Your task to perform on an android device: Open calendar and show me the second week of next month Image 0: 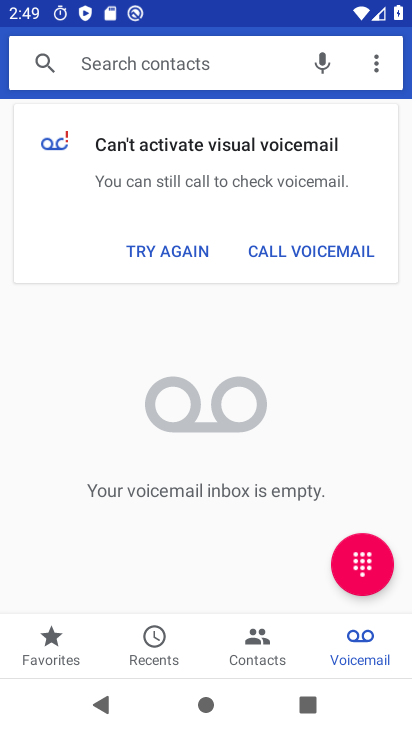
Step 0: press home button
Your task to perform on an android device: Open calendar and show me the second week of next month Image 1: 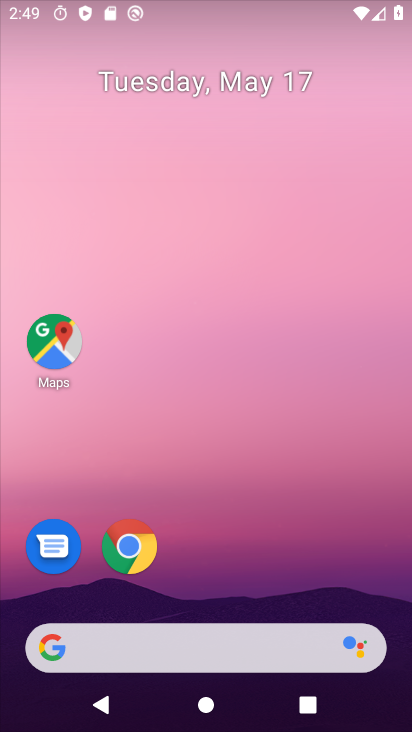
Step 1: drag from (235, 595) to (265, 112)
Your task to perform on an android device: Open calendar and show me the second week of next month Image 2: 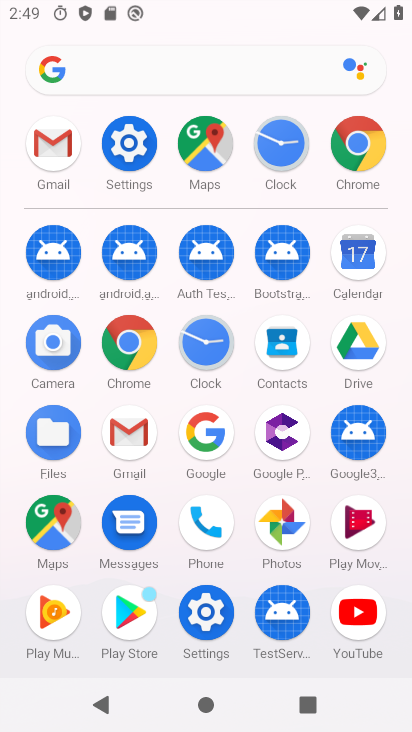
Step 2: click (362, 259)
Your task to perform on an android device: Open calendar and show me the second week of next month Image 3: 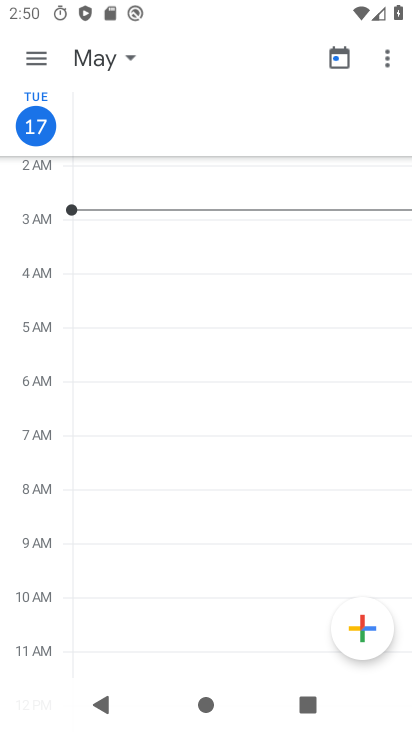
Step 3: click (122, 66)
Your task to perform on an android device: Open calendar and show me the second week of next month Image 4: 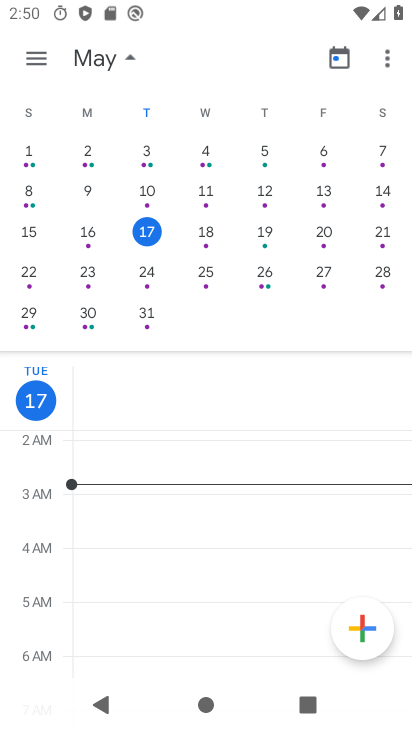
Step 4: drag from (371, 203) to (19, 241)
Your task to perform on an android device: Open calendar and show me the second week of next month Image 5: 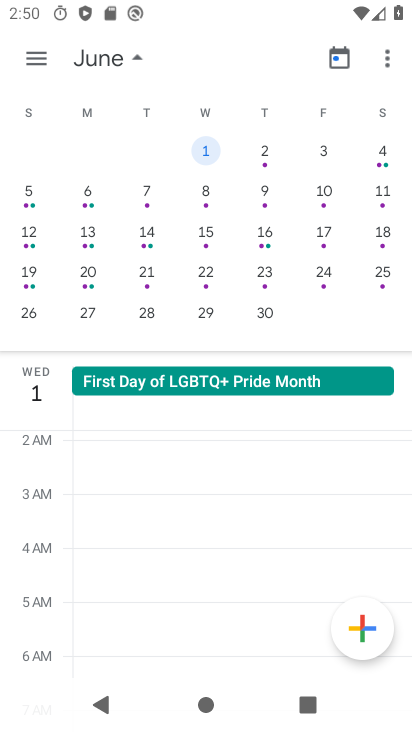
Step 5: click (35, 240)
Your task to perform on an android device: Open calendar and show me the second week of next month Image 6: 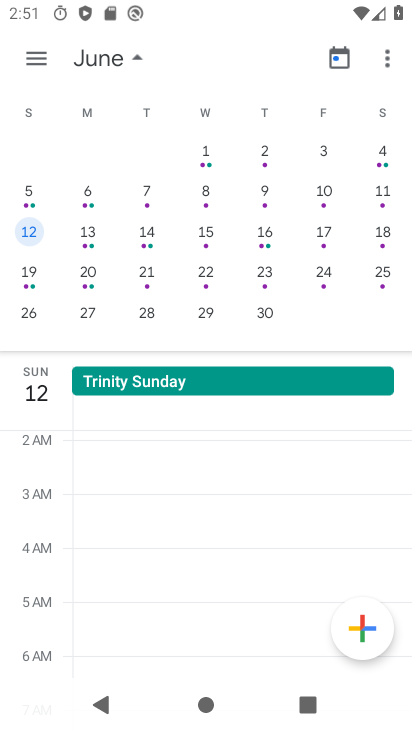
Step 6: task complete